Your task to perform on an android device: Go to eBay Image 0: 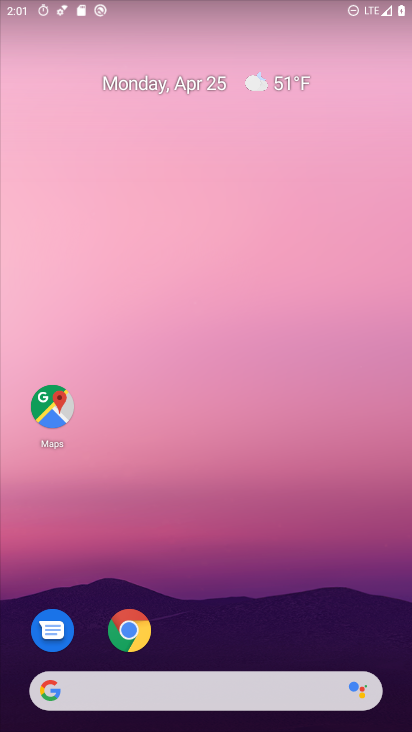
Step 0: drag from (192, 615) to (219, 148)
Your task to perform on an android device: Go to eBay Image 1: 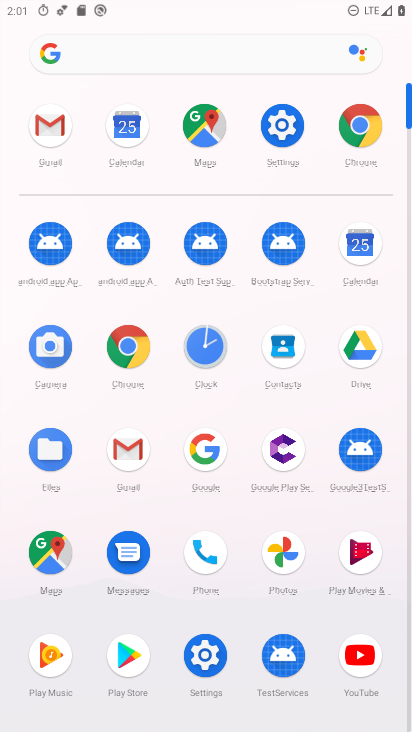
Step 1: click (128, 337)
Your task to perform on an android device: Go to eBay Image 2: 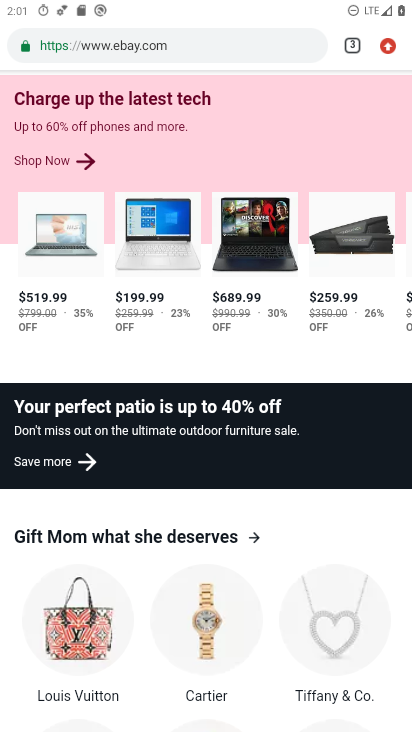
Step 2: task complete